Your task to perform on an android device: toggle wifi Image 0: 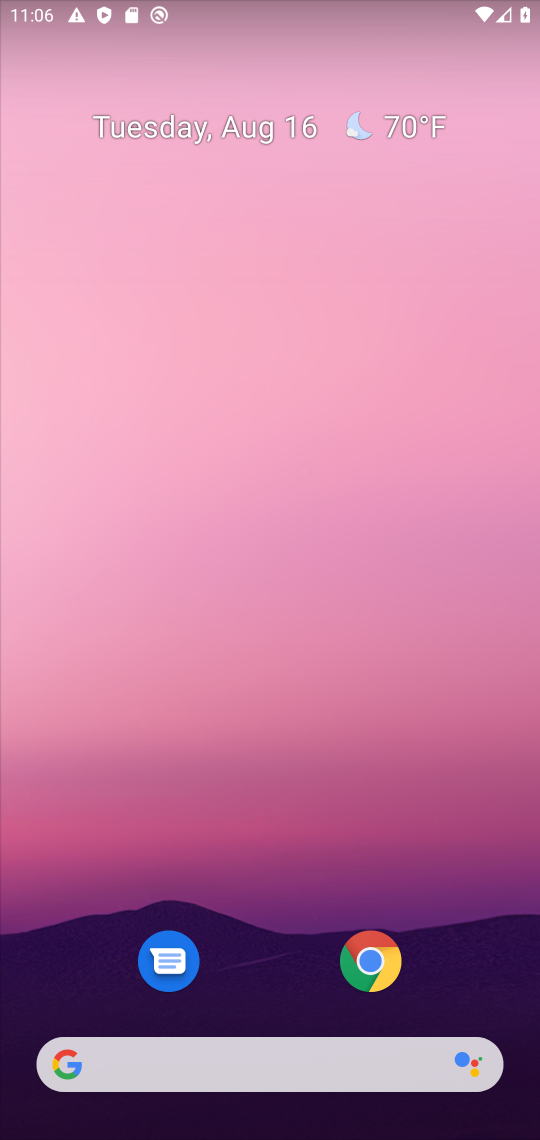
Step 0: press home button
Your task to perform on an android device: toggle wifi Image 1: 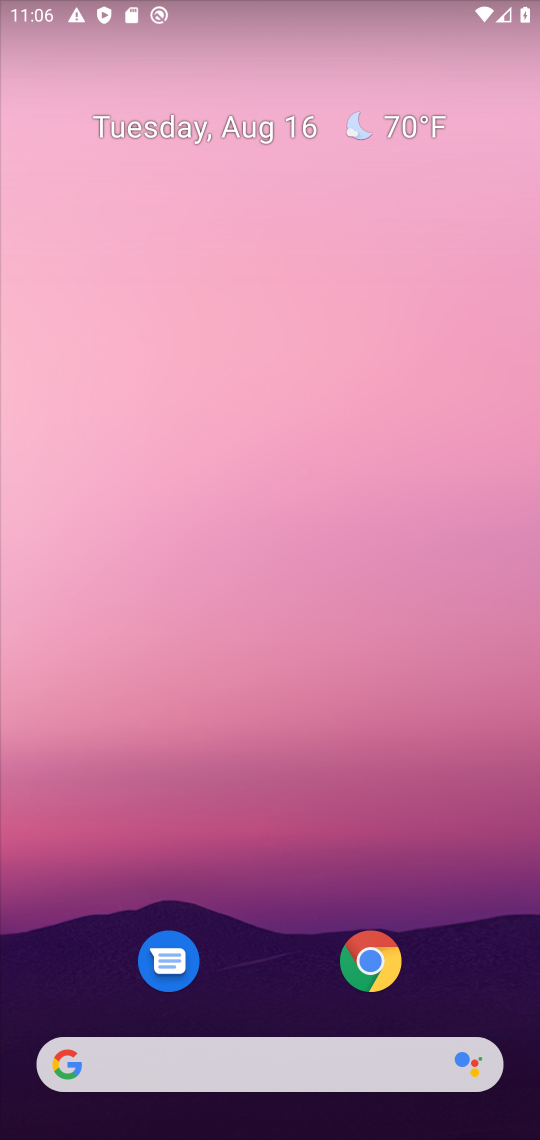
Step 1: press back button
Your task to perform on an android device: toggle wifi Image 2: 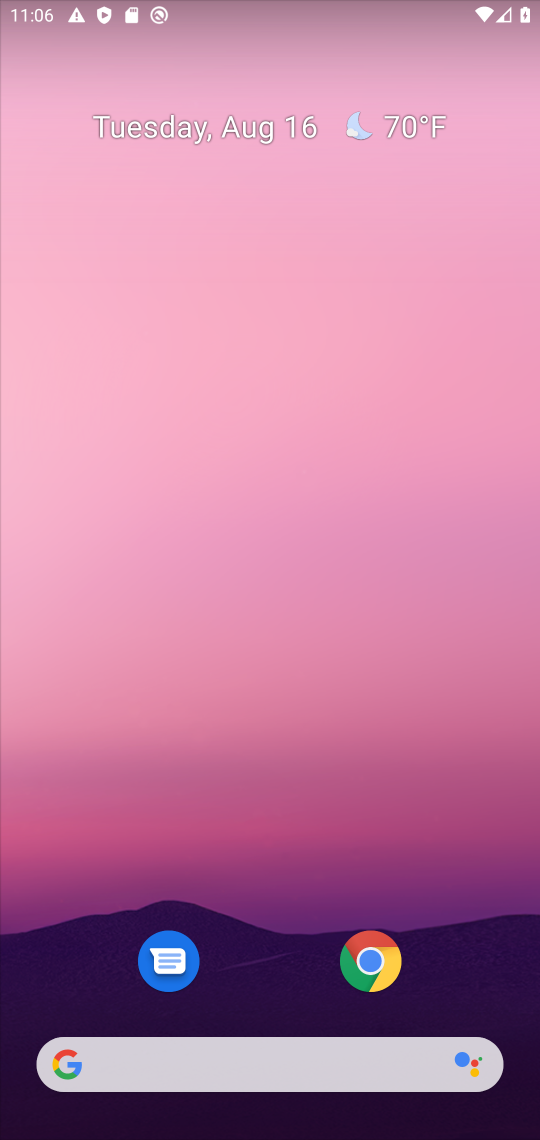
Step 2: drag from (286, 1028) to (289, 2)
Your task to perform on an android device: toggle wifi Image 3: 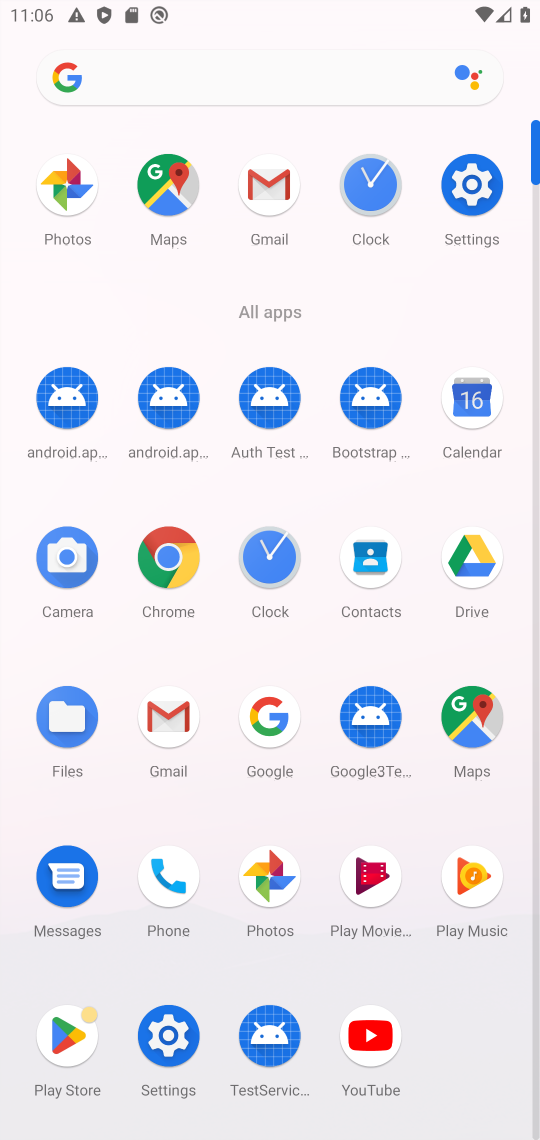
Step 3: click (464, 194)
Your task to perform on an android device: toggle wifi Image 4: 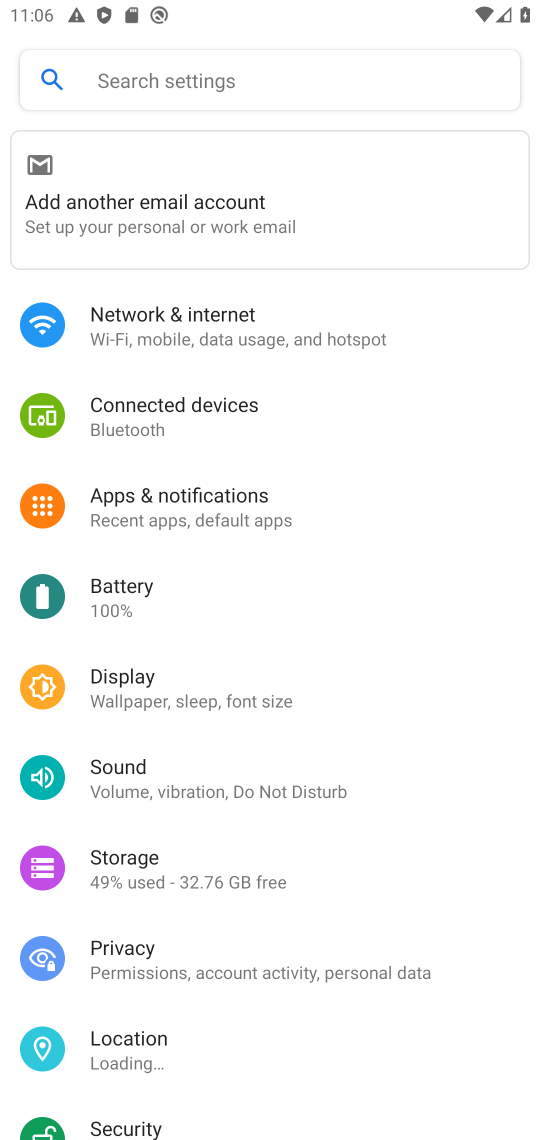
Step 4: click (228, 328)
Your task to perform on an android device: toggle wifi Image 5: 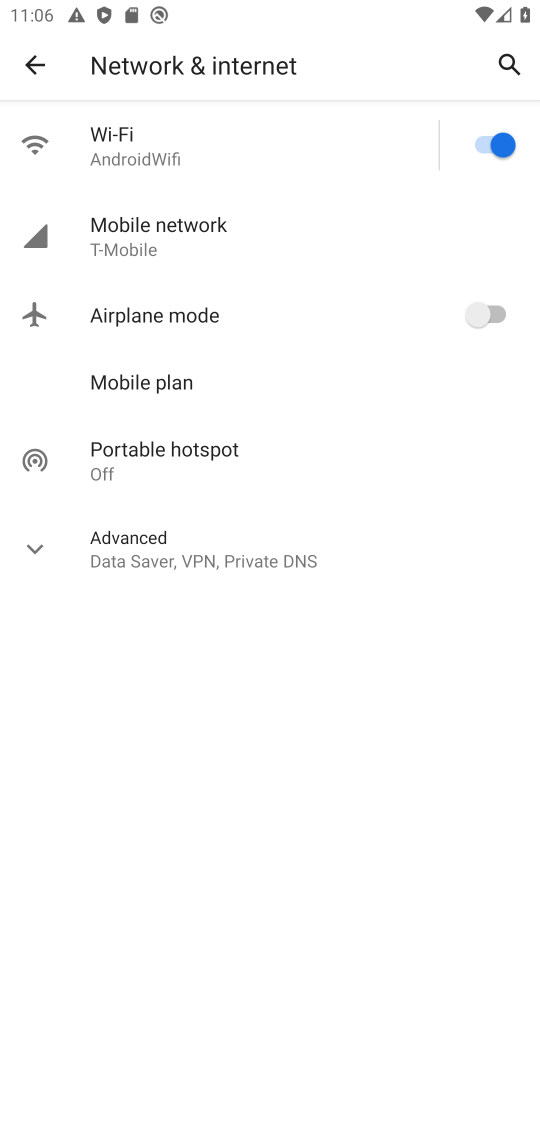
Step 5: click (478, 152)
Your task to perform on an android device: toggle wifi Image 6: 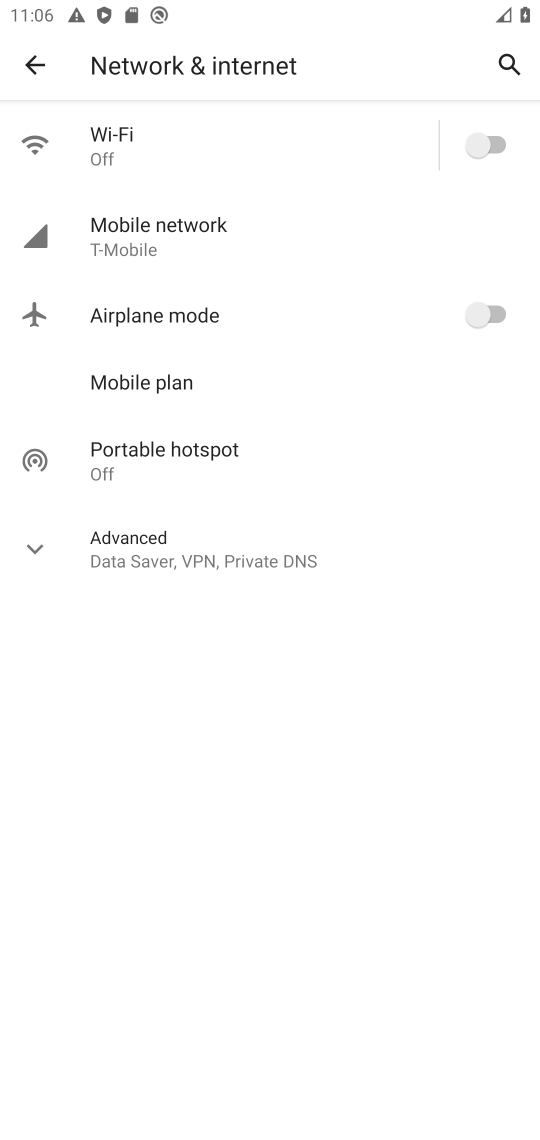
Step 6: task complete